Your task to perform on an android device: Go to Maps Image 0: 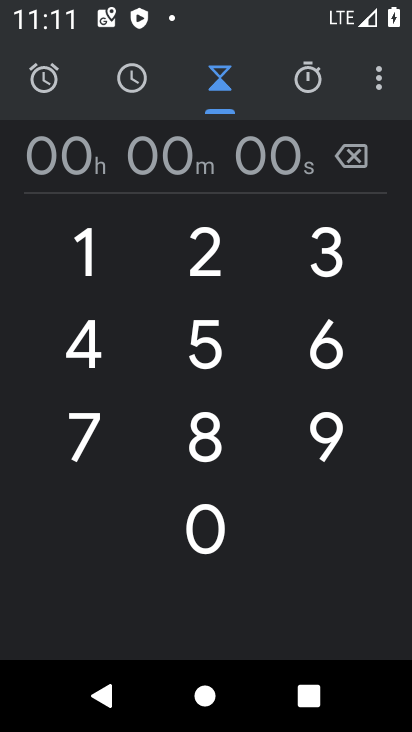
Step 0: press back button
Your task to perform on an android device: Go to Maps Image 1: 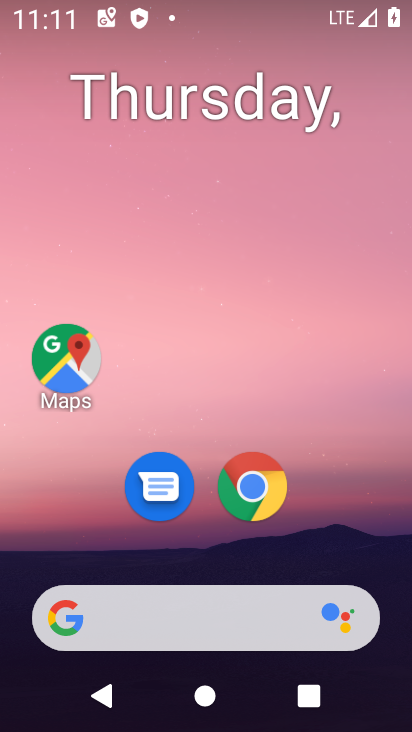
Step 1: drag from (220, 542) to (295, 25)
Your task to perform on an android device: Go to Maps Image 2: 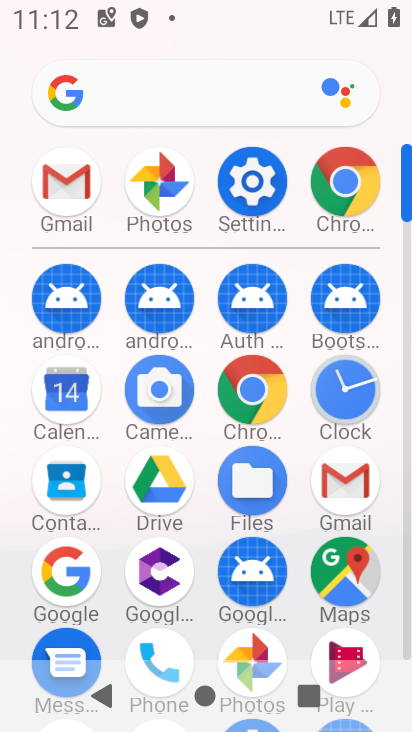
Step 2: click (336, 578)
Your task to perform on an android device: Go to Maps Image 3: 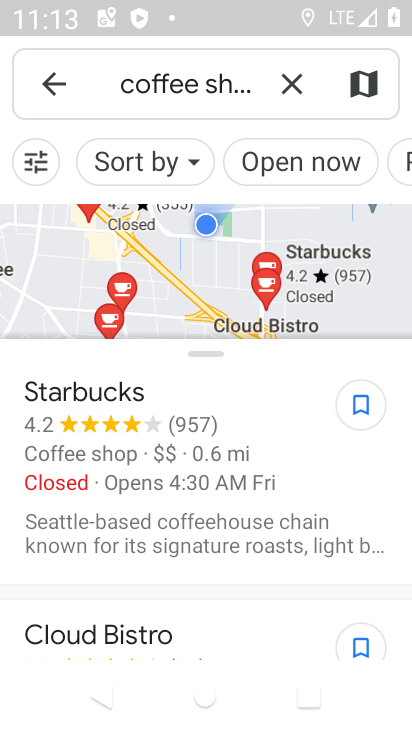
Step 3: task complete